Your task to perform on an android device: Go to location settings Image 0: 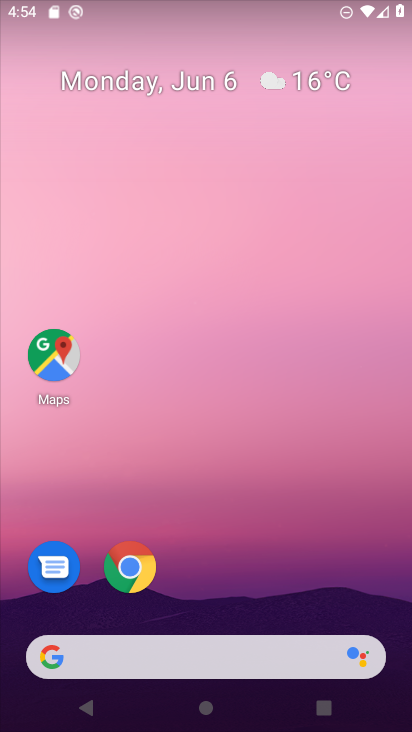
Step 0: drag from (227, 575) to (177, 176)
Your task to perform on an android device: Go to location settings Image 1: 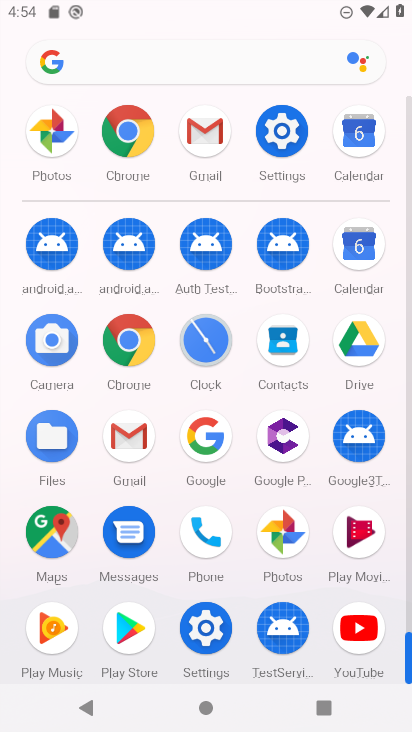
Step 1: drag from (229, 471) to (184, 97)
Your task to perform on an android device: Go to location settings Image 2: 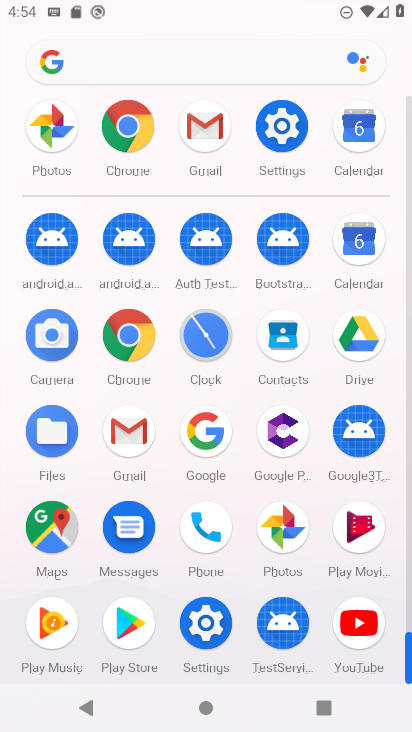
Step 2: click (209, 639)
Your task to perform on an android device: Go to location settings Image 3: 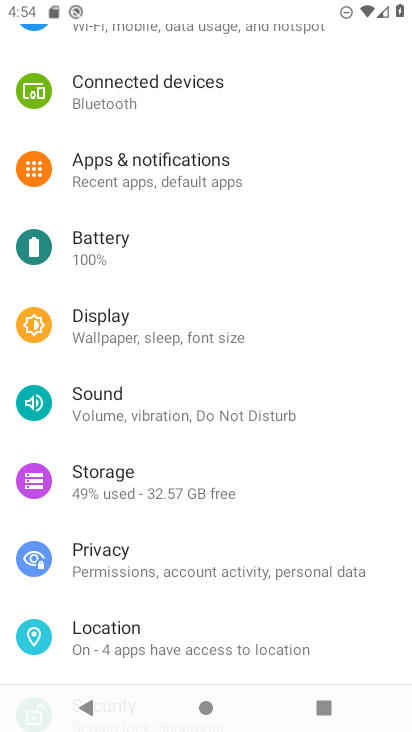
Step 3: click (121, 633)
Your task to perform on an android device: Go to location settings Image 4: 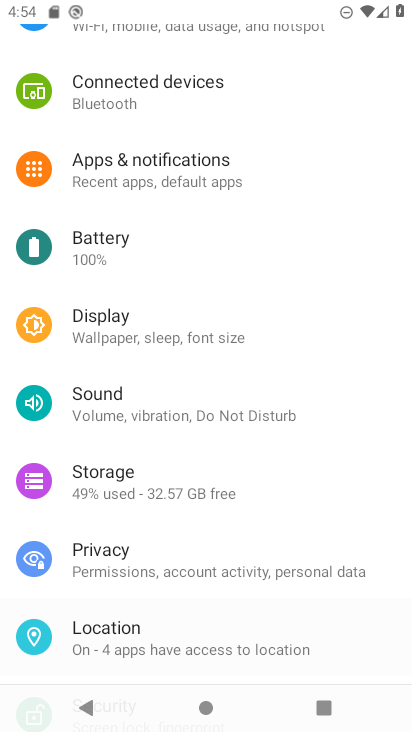
Step 4: click (120, 632)
Your task to perform on an android device: Go to location settings Image 5: 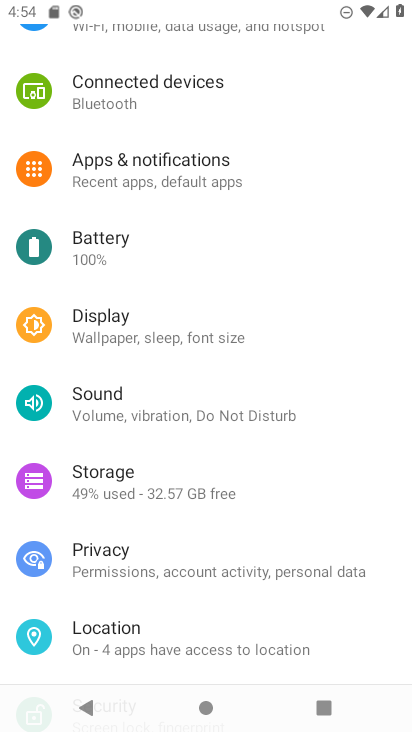
Step 5: click (119, 632)
Your task to perform on an android device: Go to location settings Image 6: 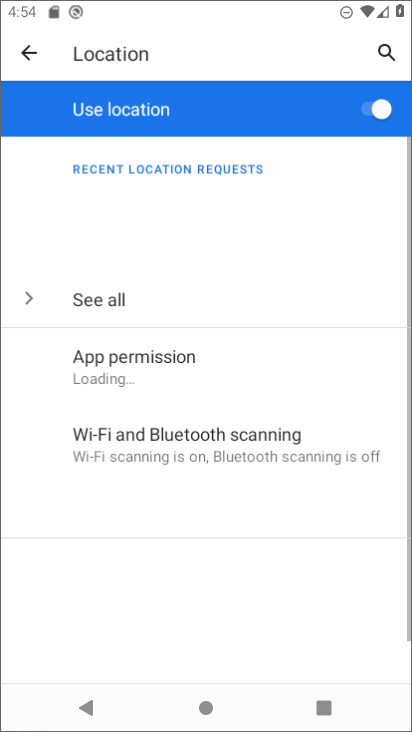
Step 6: click (118, 633)
Your task to perform on an android device: Go to location settings Image 7: 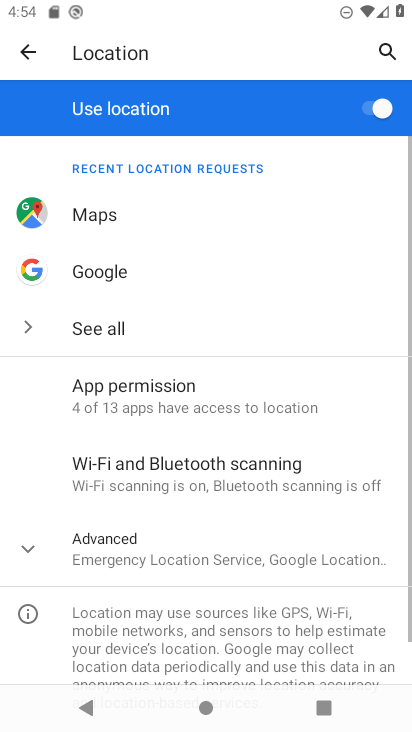
Step 7: click (173, 573)
Your task to perform on an android device: Go to location settings Image 8: 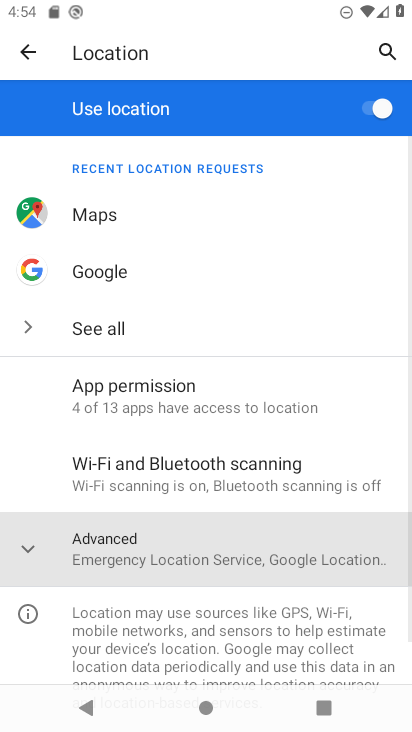
Step 8: click (165, 560)
Your task to perform on an android device: Go to location settings Image 9: 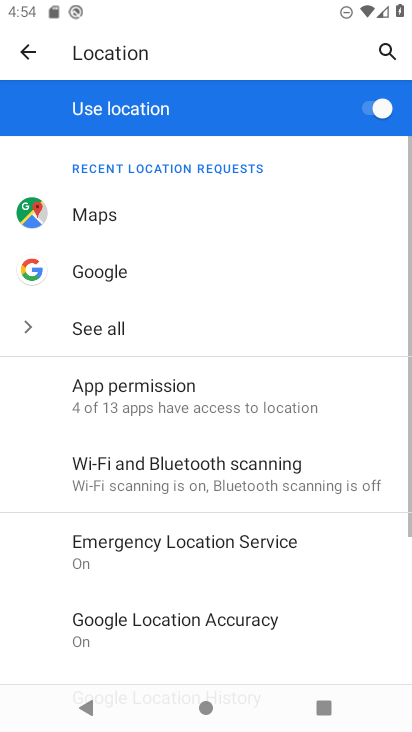
Step 9: task complete